Your task to perform on an android device: uninstall "TextNow: Call + Text Unlimited" Image 0: 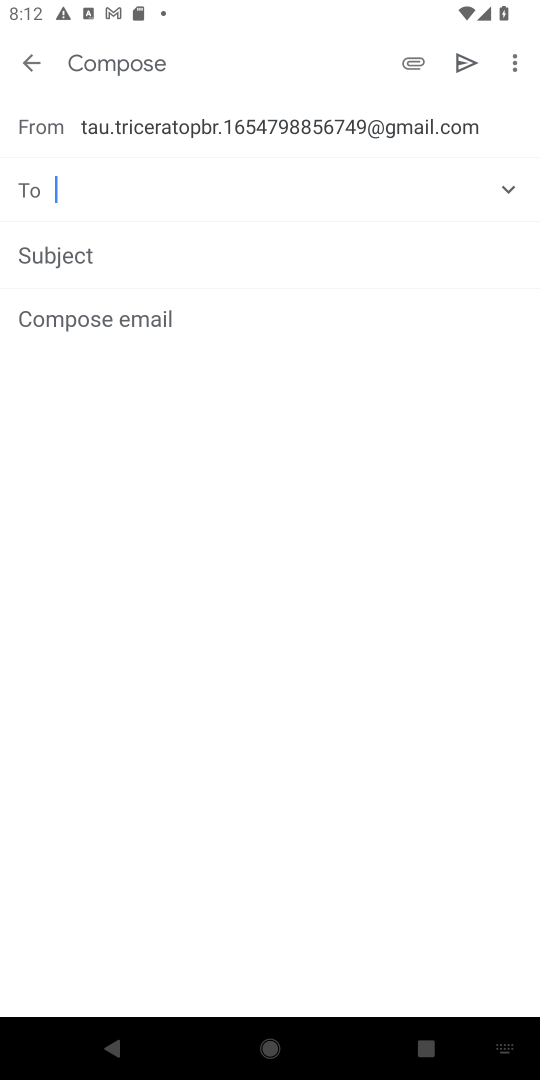
Step 0: press home button
Your task to perform on an android device: uninstall "TextNow: Call + Text Unlimited" Image 1: 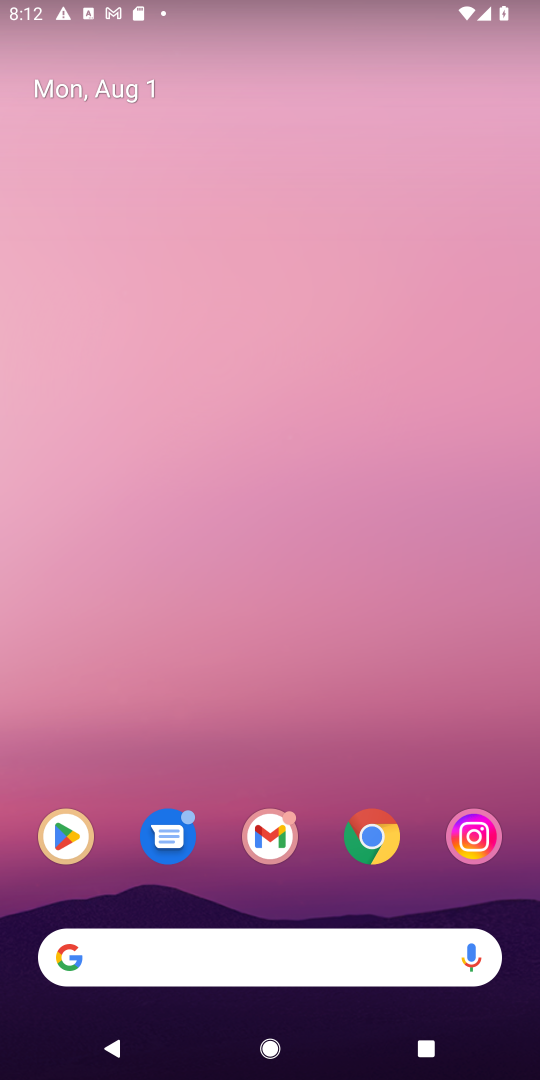
Step 1: click (59, 836)
Your task to perform on an android device: uninstall "TextNow: Call + Text Unlimited" Image 2: 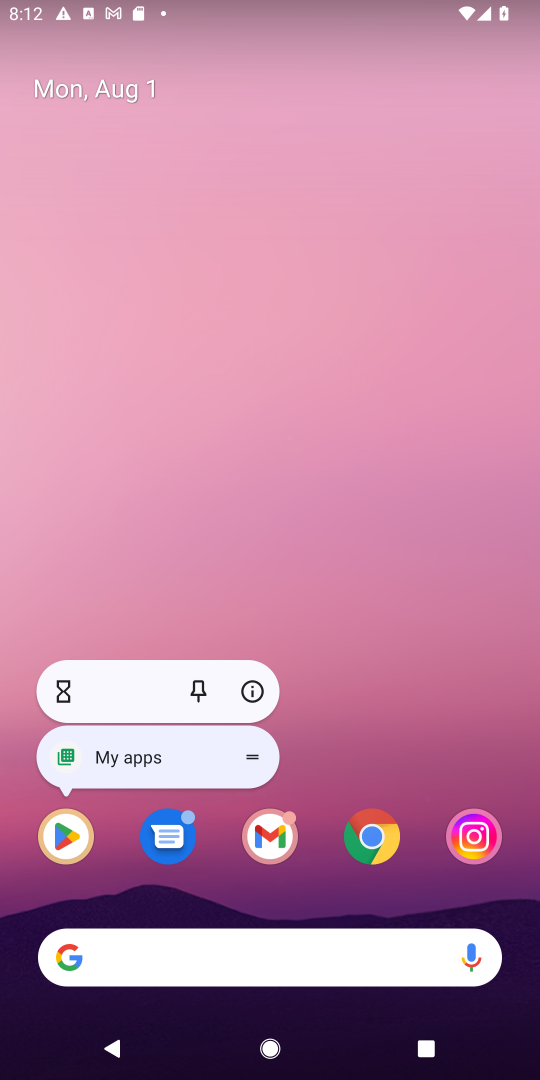
Step 2: click (79, 831)
Your task to perform on an android device: uninstall "TextNow: Call + Text Unlimited" Image 3: 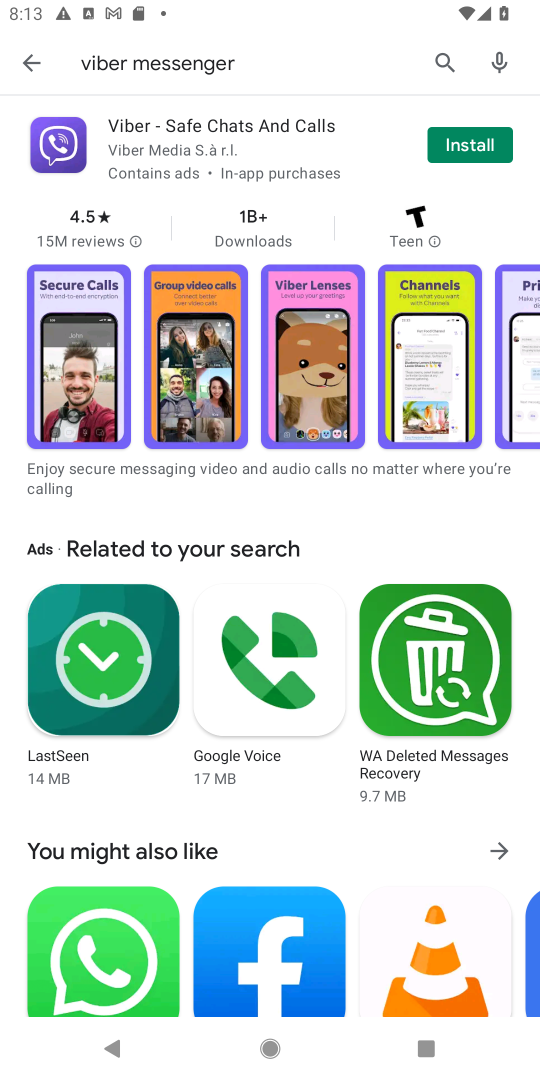
Step 3: click (450, 57)
Your task to perform on an android device: uninstall "TextNow: Call + Text Unlimited" Image 4: 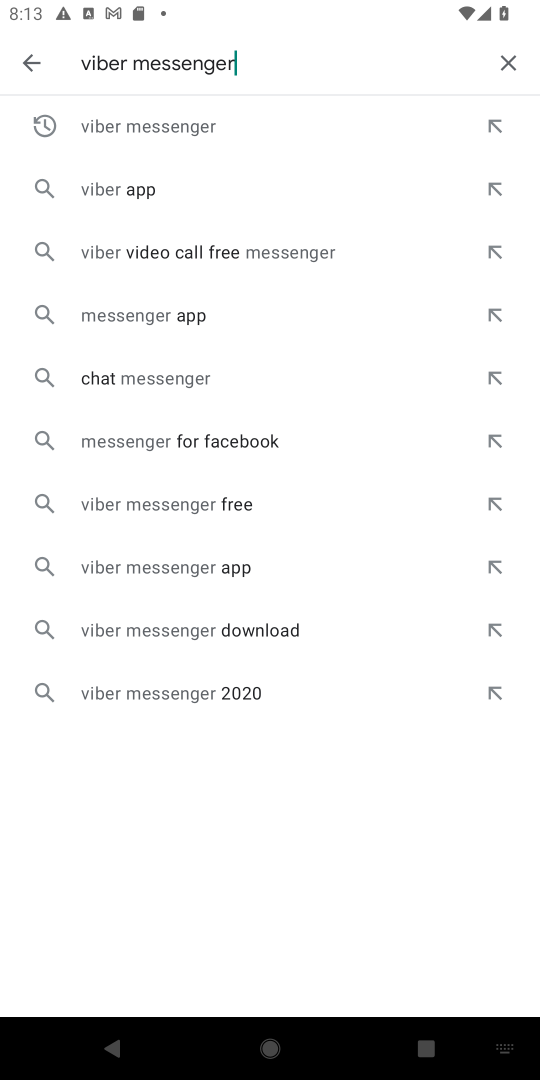
Step 4: click (508, 62)
Your task to perform on an android device: uninstall "TextNow: Call + Text Unlimited" Image 5: 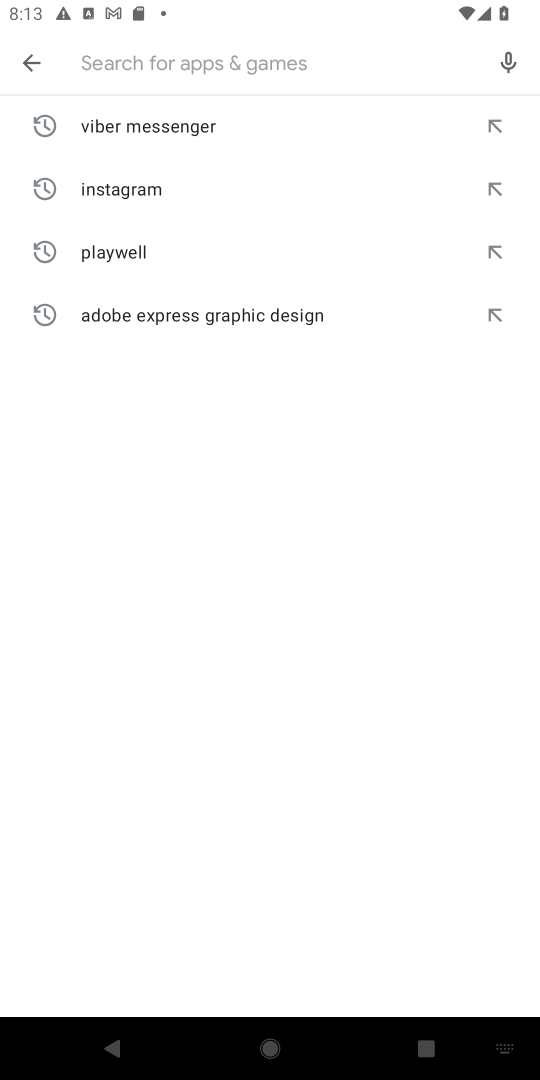
Step 5: type "TextNow: Call + Text Unlimited"
Your task to perform on an android device: uninstall "TextNow: Call + Text Unlimited" Image 6: 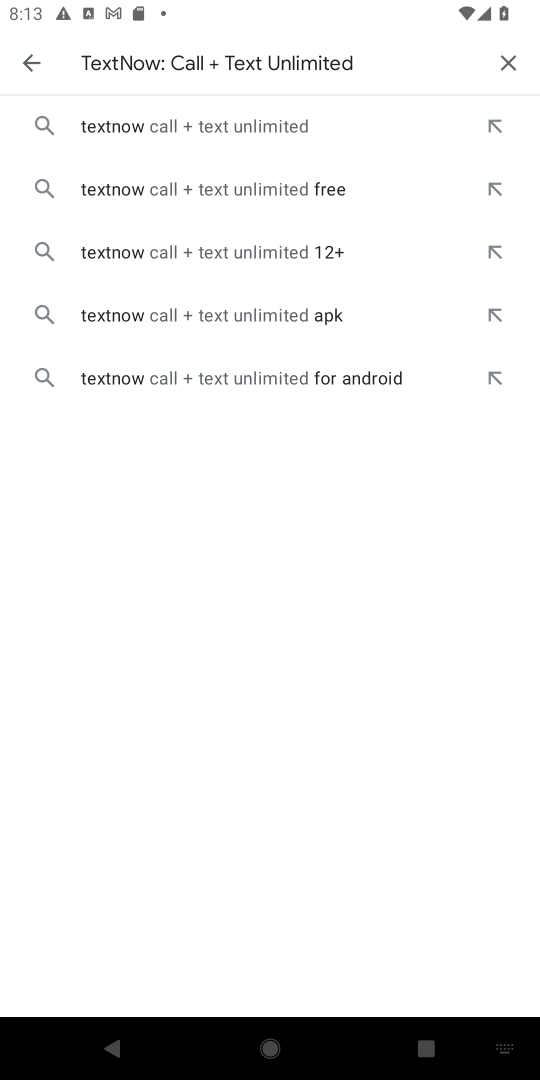
Step 6: click (142, 112)
Your task to perform on an android device: uninstall "TextNow: Call + Text Unlimited" Image 7: 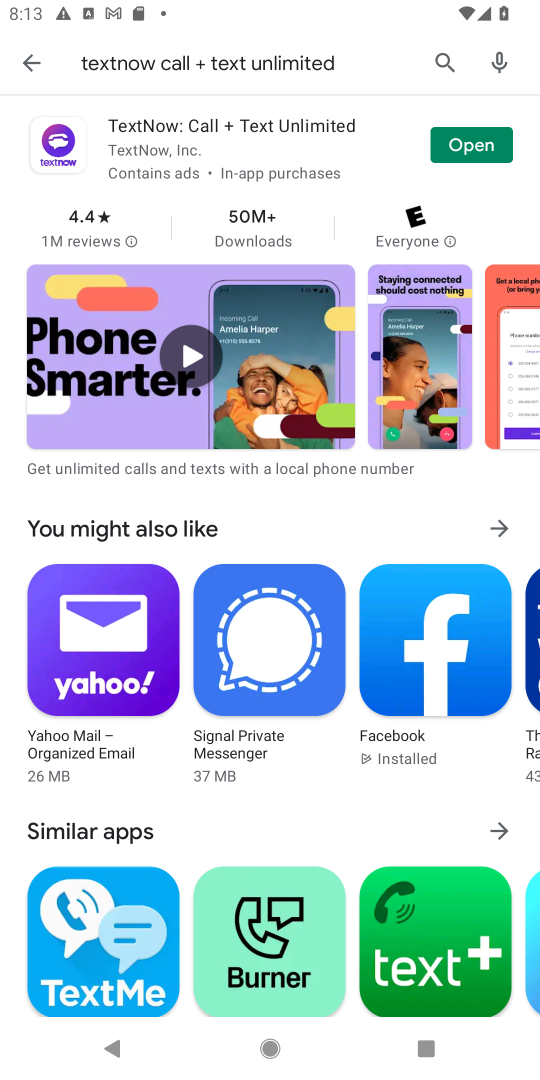
Step 7: click (98, 142)
Your task to perform on an android device: uninstall "TextNow: Call + Text Unlimited" Image 8: 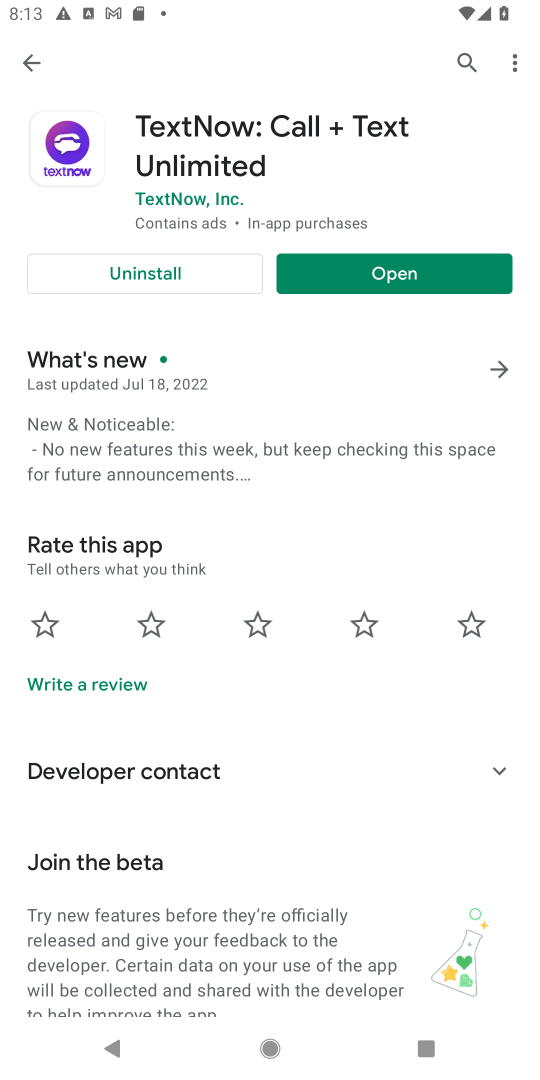
Step 8: click (193, 266)
Your task to perform on an android device: uninstall "TextNow: Call + Text Unlimited" Image 9: 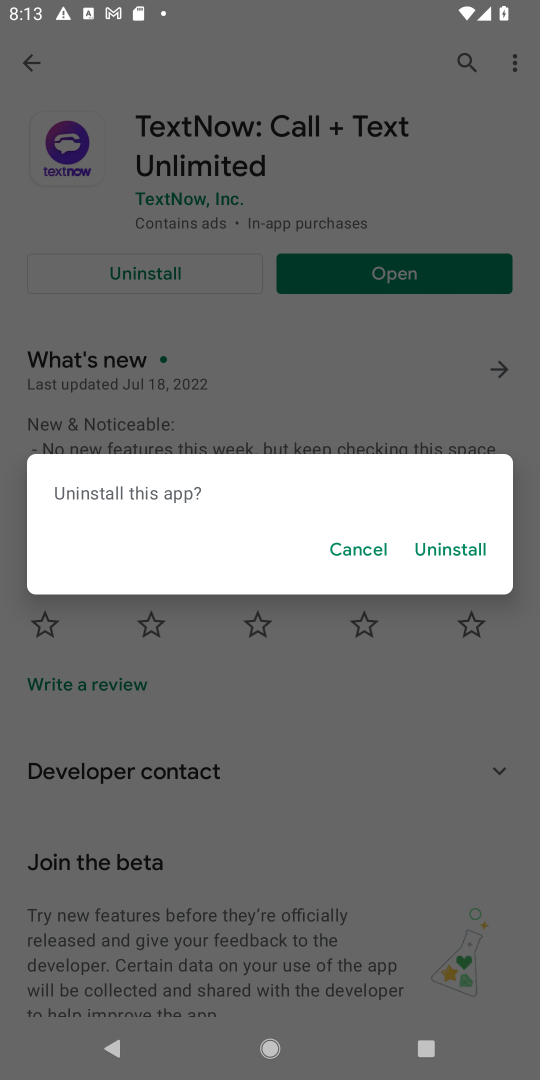
Step 9: click (462, 556)
Your task to perform on an android device: uninstall "TextNow: Call + Text Unlimited" Image 10: 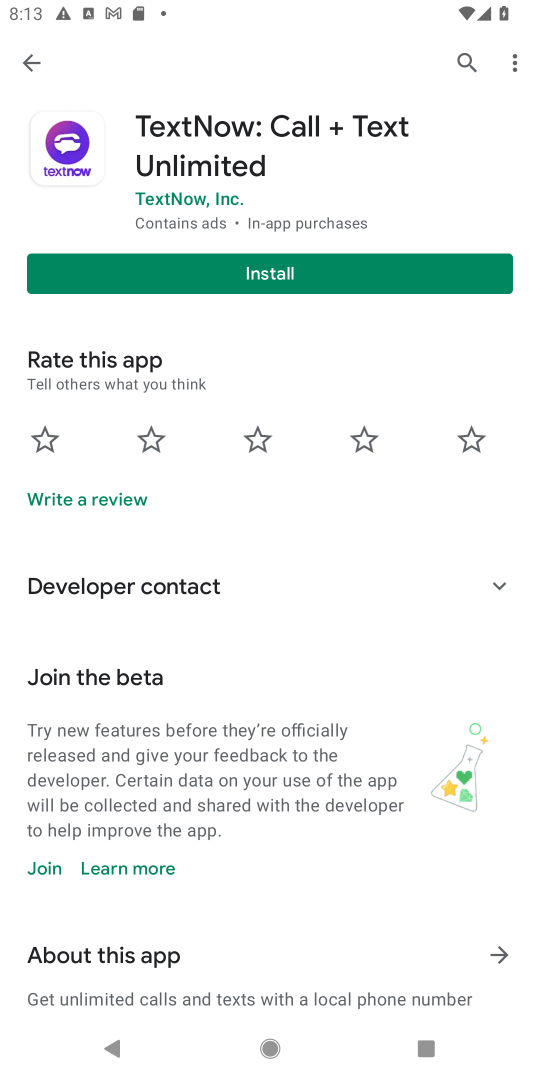
Step 10: task complete